Your task to perform on an android device: turn on javascript in the chrome app Image 0: 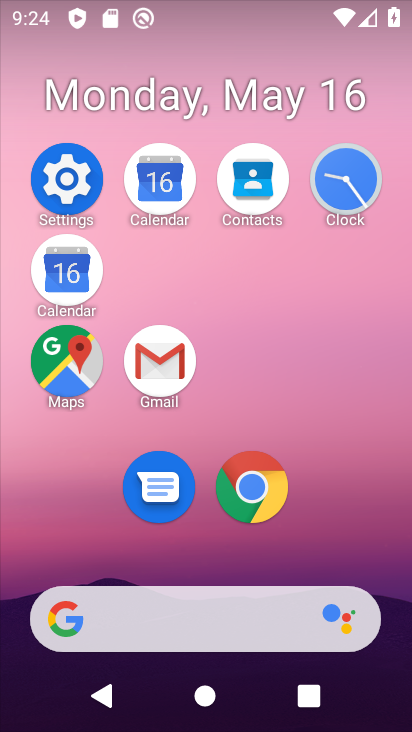
Step 0: click (263, 465)
Your task to perform on an android device: turn on javascript in the chrome app Image 1: 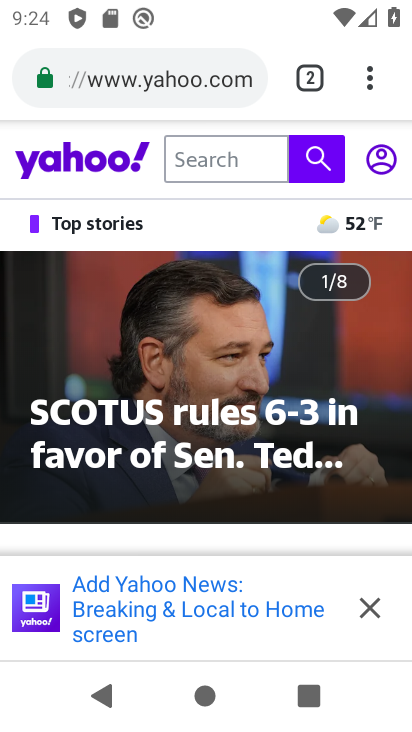
Step 1: click (365, 85)
Your task to perform on an android device: turn on javascript in the chrome app Image 2: 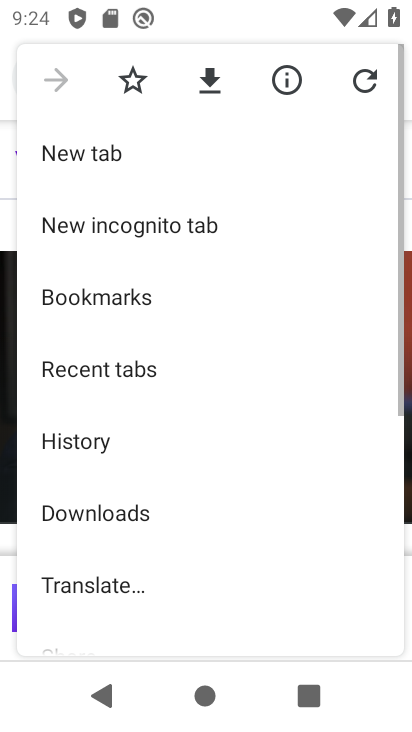
Step 2: drag from (251, 508) to (301, 97)
Your task to perform on an android device: turn on javascript in the chrome app Image 3: 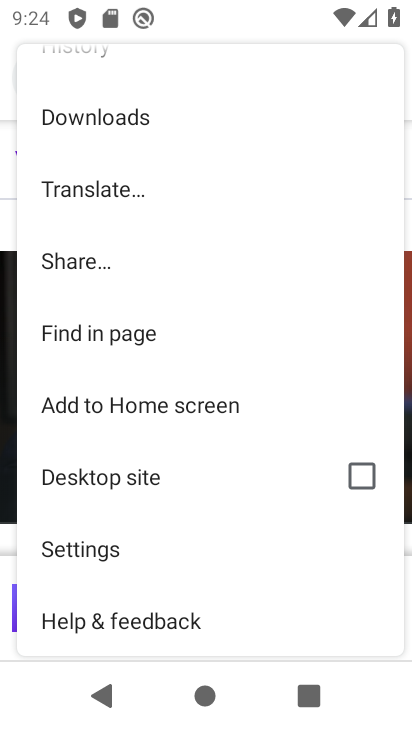
Step 3: click (102, 560)
Your task to perform on an android device: turn on javascript in the chrome app Image 4: 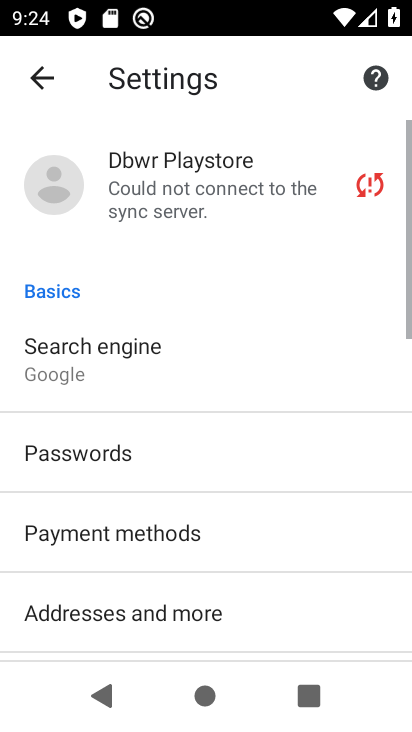
Step 4: drag from (101, 559) to (160, 90)
Your task to perform on an android device: turn on javascript in the chrome app Image 5: 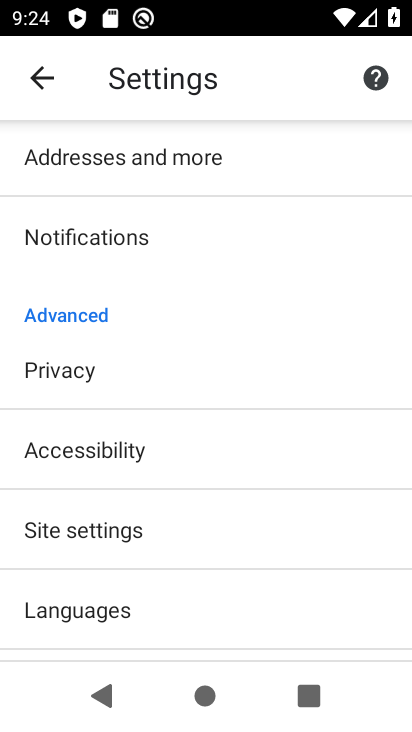
Step 5: click (117, 536)
Your task to perform on an android device: turn on javascript in the chrome app Image 6: 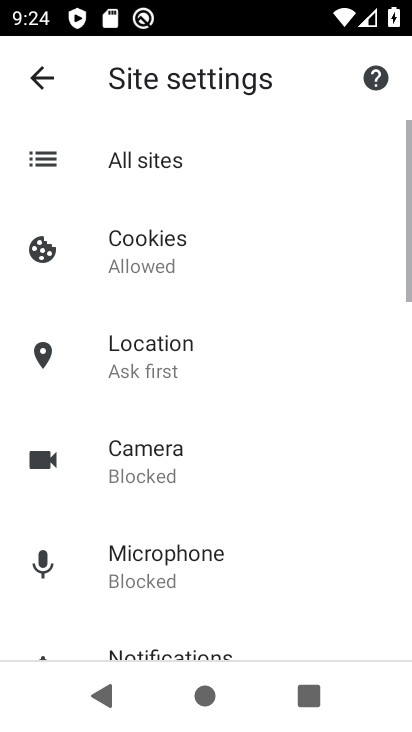
Step 6: drag from (119, 536) to (162, 128)
Your task to perform on an android device: turn on javascript in the chrome app Image 7: 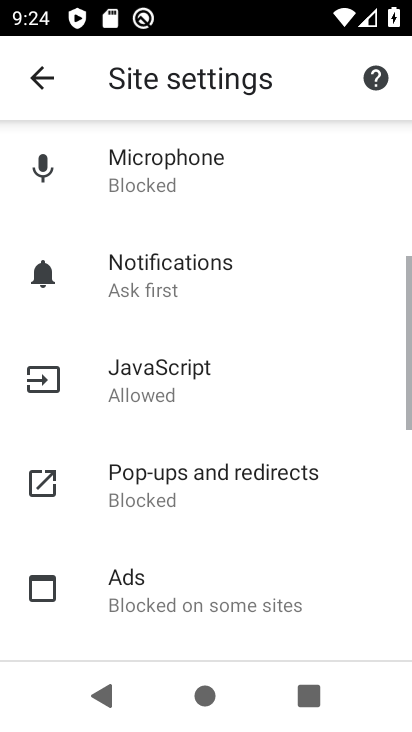
Step 7: click (187, 365)
Your task to perform on an android device: turn on javascript in the chrome app Image 8: 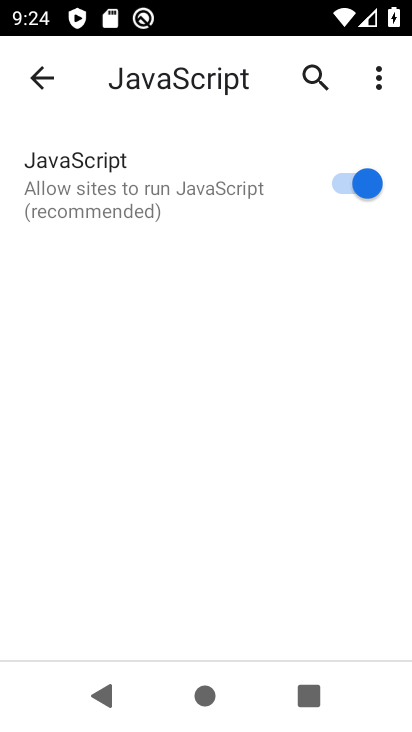
Step 8: task complete